Your task to perform on an android device: Open Google Chrome and open the bookmarks view Image 0: 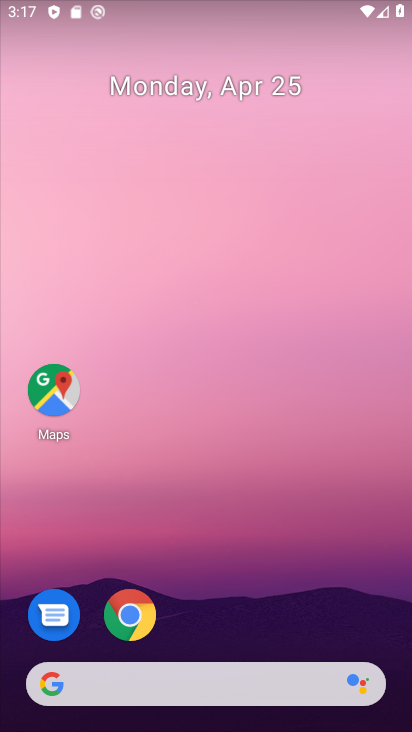
Step 0: click (126, 627)
Your task to perform on an android device: Open Google Chrome and open the bookmarks view Image 1: 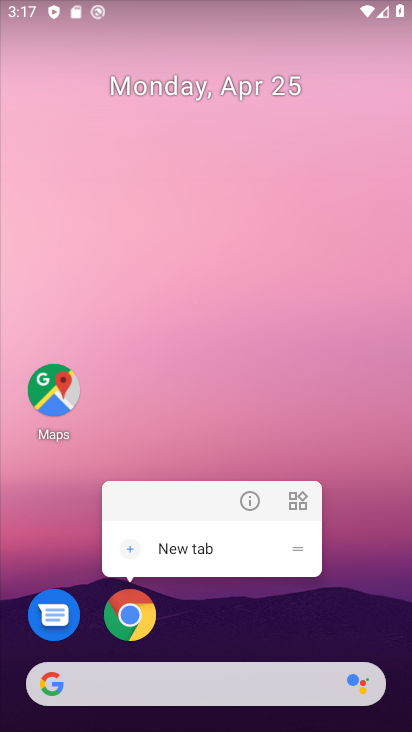
Step 1: click (136, 639)
Your task to perform on an android device: Open Google Chrome and open the bookmarks view Image 2: 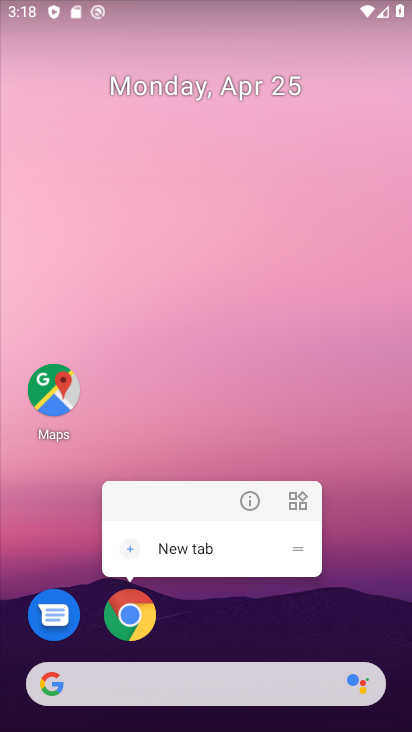
Step 2: click (137, 618)
Your task to perform on an android device: Open Google Chrome and open the bookmarks view Image 3: 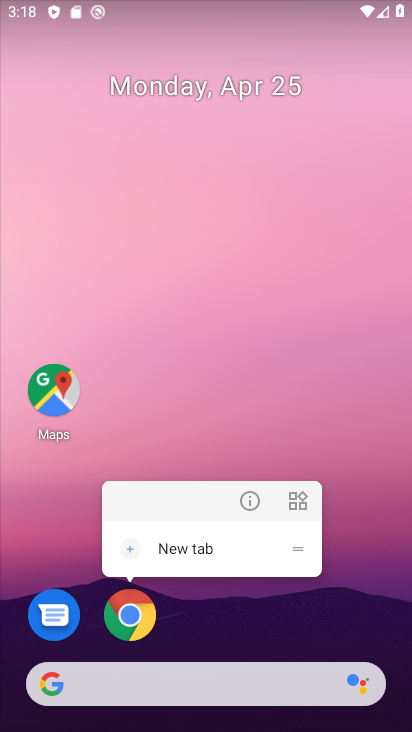
Step 3: click (123, 612)
Your task to perform on an android device: Open Google Chrome and open the bookmarks view Image 4: 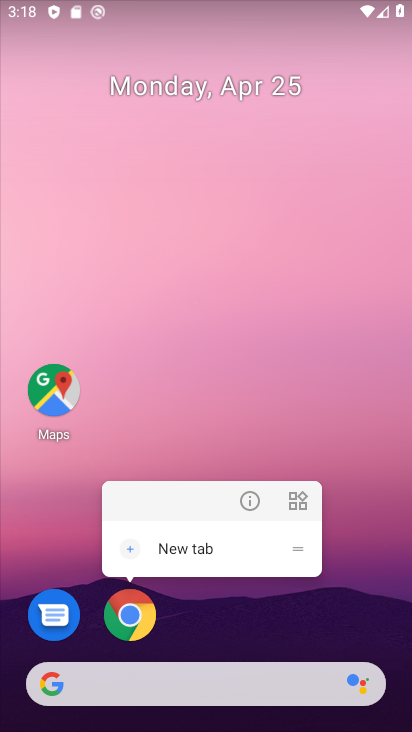
Step 4: click (132, 620)
Your task to perform on an android device: Open Google Chrome and open the bookmarks view Image 5: 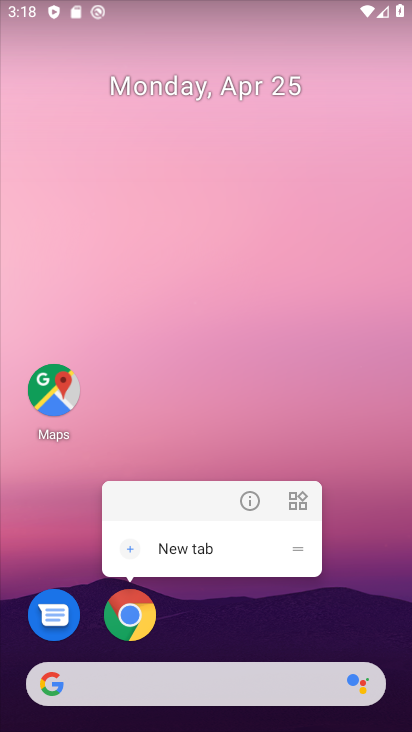
Step 5: click (132, 620)
Your task to perform on an android device: Open Google Chrome and open the bookmarks view Image 6: 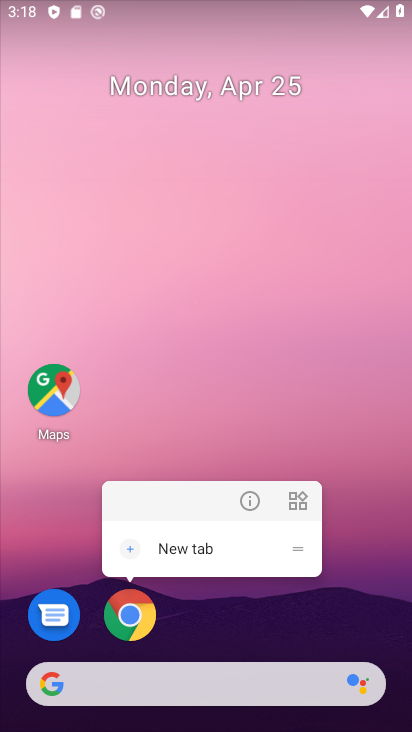
Step 6: click (132, 621)
Your task to perform on an android device: Open Google Chrome and open the bookmarks view Image 7: 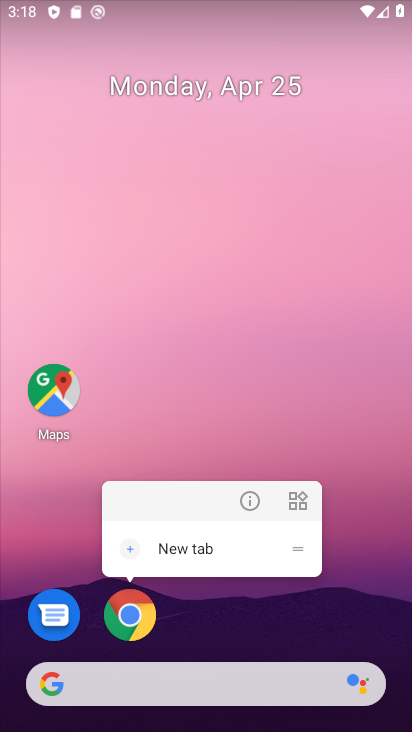
Step 7: click (138, 618)
Your task to perform on an android device: Open Google Chrome and open the bookmarks view Image 8: 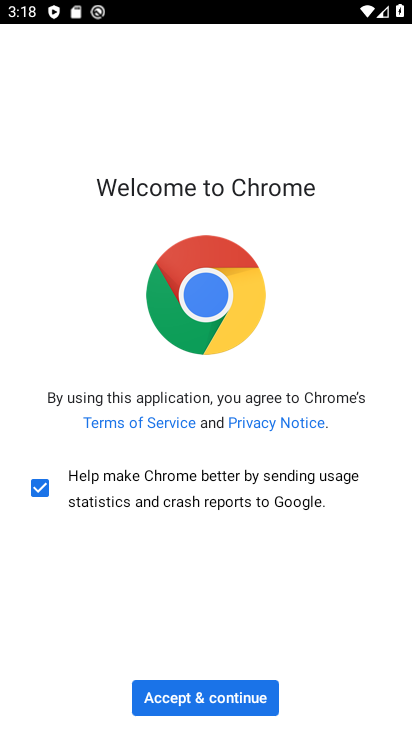
Step 8: click (247, 680)
Your task to perform on an android device: Open Google Chrome and open the bookmarks view Image 9: 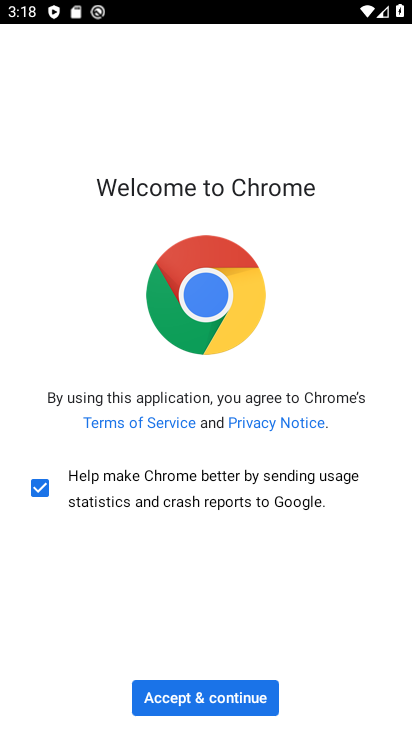
Step 9: click (175, 696)
Your task to perform on an android device: Open Google Chrome and open the bookmarks view Image 10: 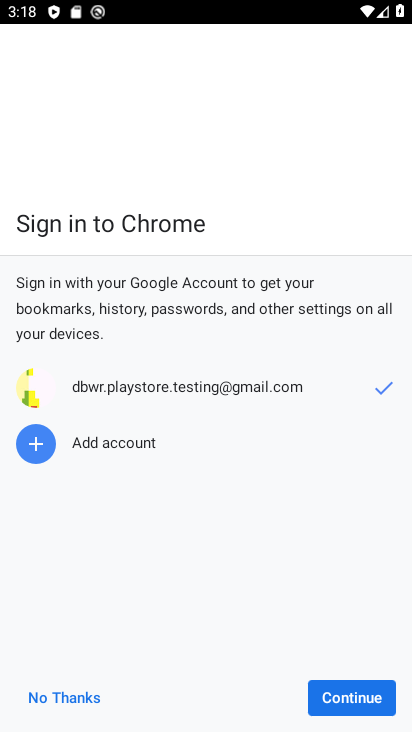
Step 10: click (367, 703)
Your task to perform on an android device: Open Google Chrome and open the bookmarks view Image 11: 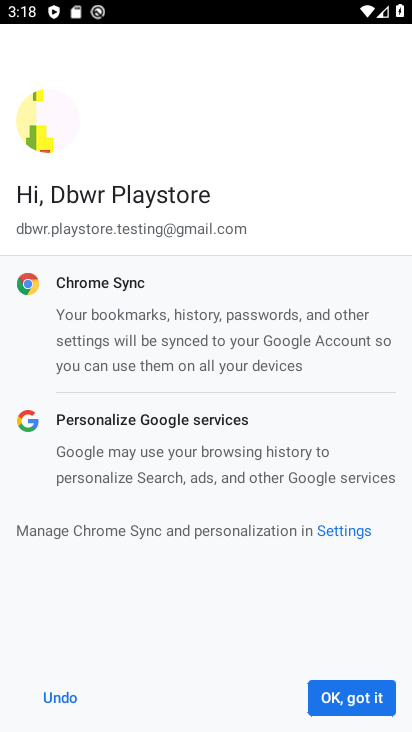
Step 11: click (365, 706)
Your task to perform on an android device: Open Google Chrome and open the bookmarks view Image 12: 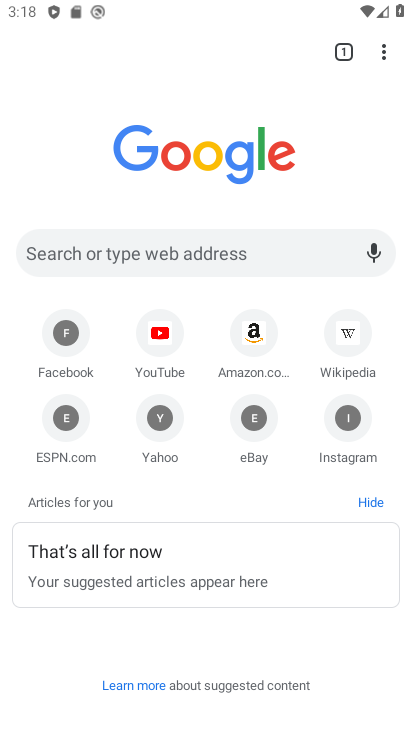
Step 12: task complete